Your task to perform on an android device: Is it going to rain tomorrow? Image 0: 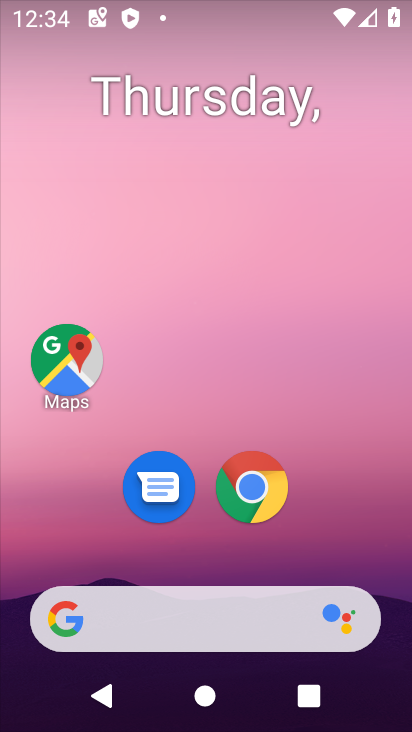
Step 0: click (264, 492)
Your task to perform on an android device: Is it going to rain tomorrow? Image 1: 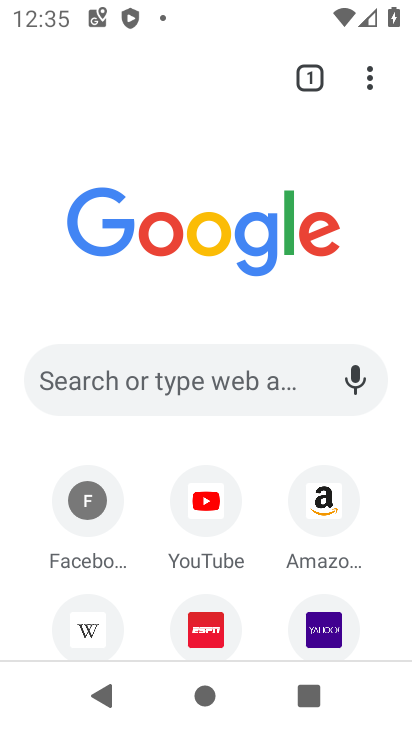
Step 1: click (254, 383)
Your task to perform on an android device: Is it going to rain tomorrow? Image 2: 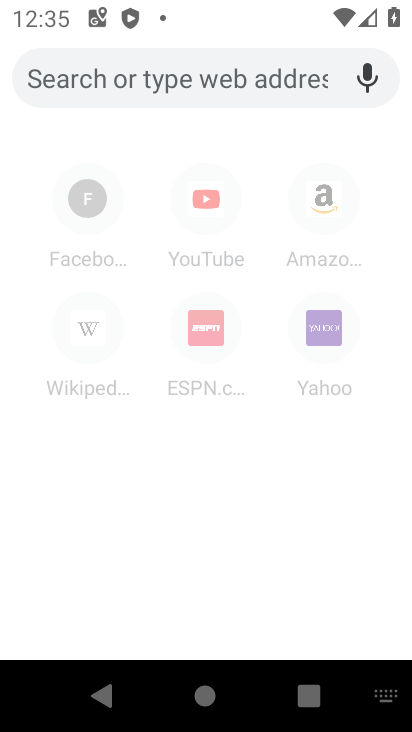
Step 2: type "Is it going to rain tomorrow?"
Your task to perform on an android device: Is it going to rain tomorrow? Image 3: 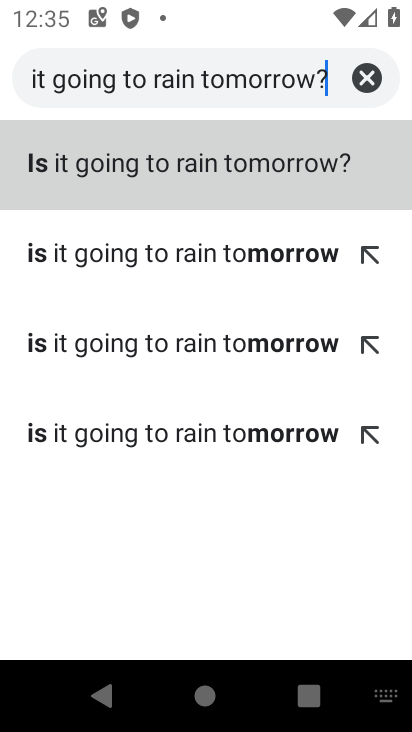
Step 3: click (269, 160)
Your task to perform on an android device: Is it going to rain tomorrow? Image 4: 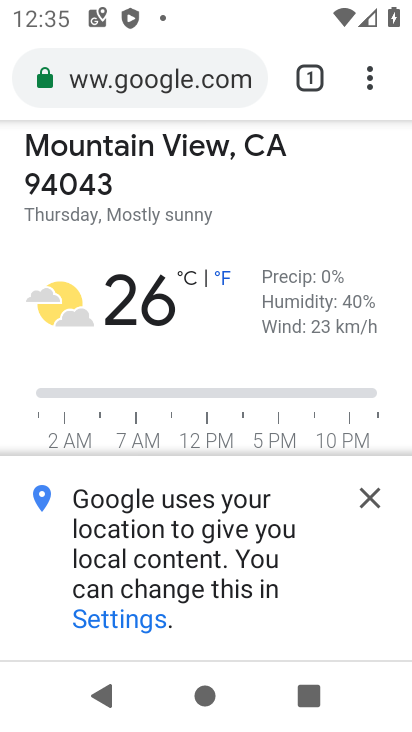
Step 4: click (373, 506)
Your task to perform on an android device: Is it going to rain tomorrow? Image 5: 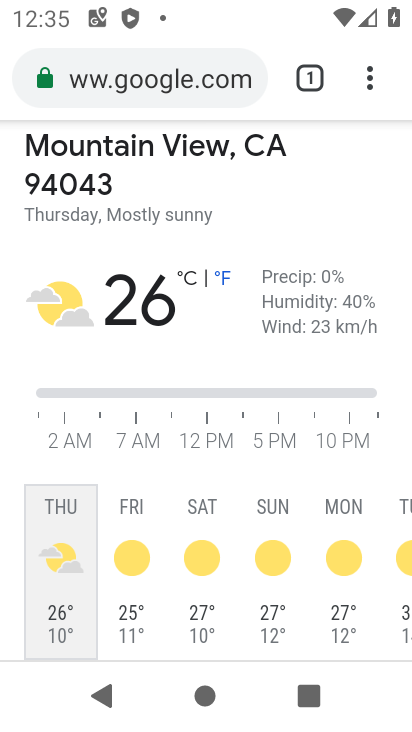
Step 5: click (131, 534)
Your task to perform on an android device: Is it going to rain tomorrow? Image 6: 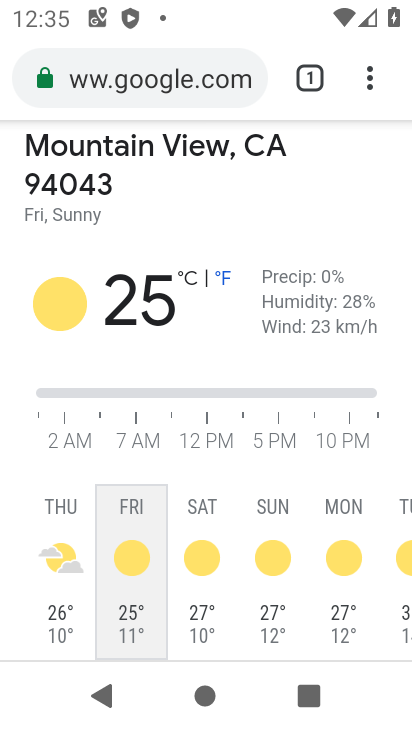
Step 6: task complete